Your task to perform on an android device: turn off translation in the chrome app Image 0: 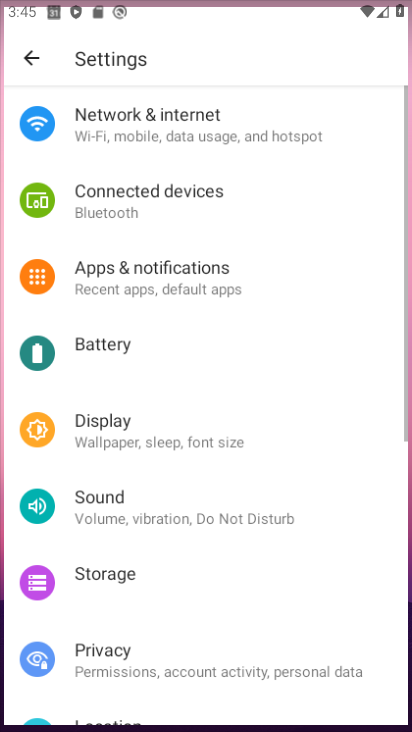
Step 0: drag from (266, 705) to (235, 181)
Your task to perform on an android device: turn off translation in the chrome app Image 1: 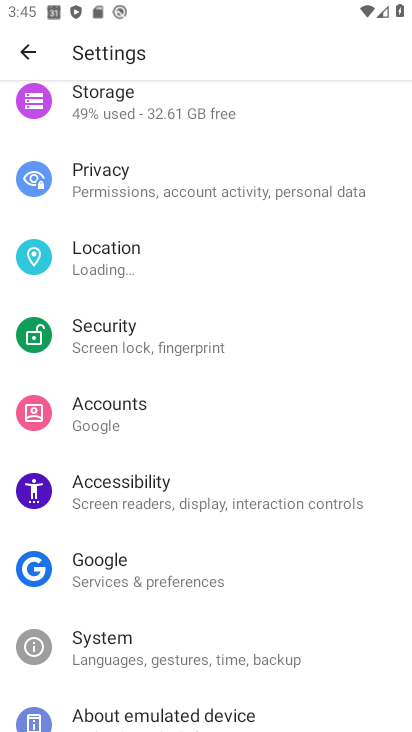
Step 1: press back button
Your task to perform on an android device: turn off translation in the chrome app Image 2: 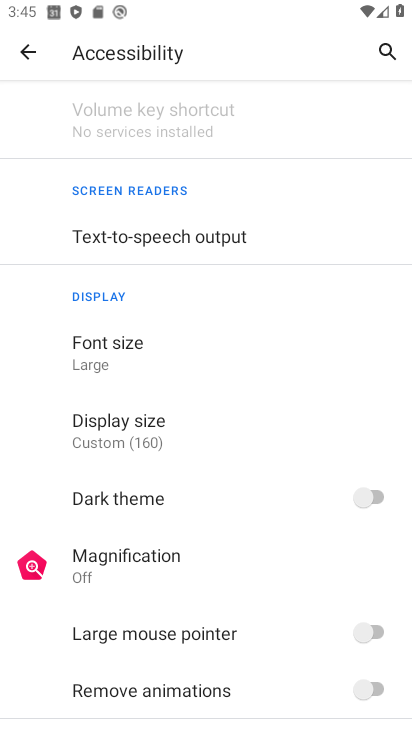
Step 2: click (28, 56)
Your task to perform on an android device: turn off translation in the chrome app Image 3: 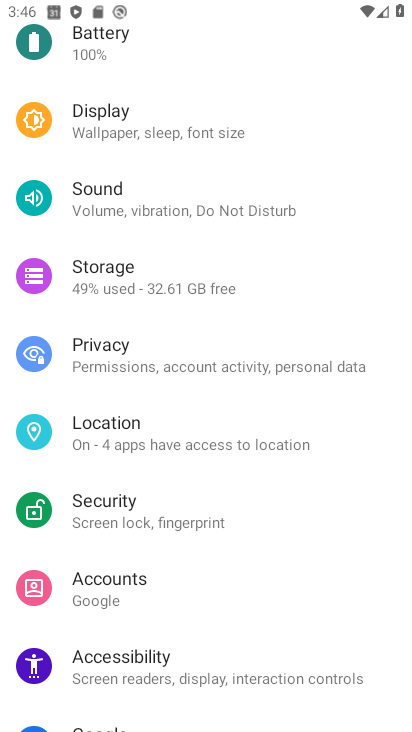
Step 3: press home button
Your task to perform on an android device: turn off translation in the chrome app Image 4: 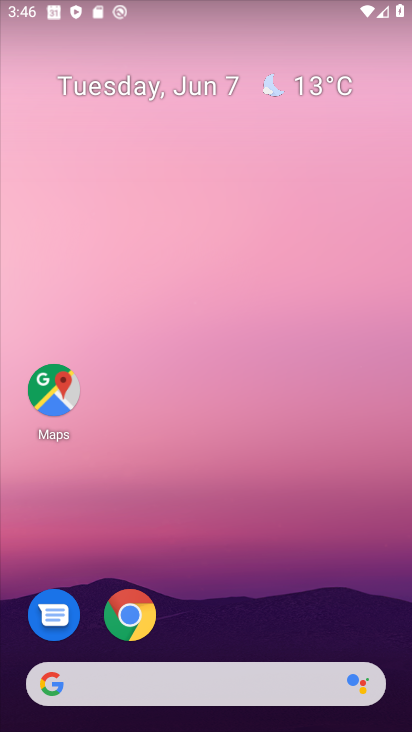
Step 4: drag from (221, 601) to (173, 239)
Your task to perform on an android device: turn off translation in the chrome app Image 5: 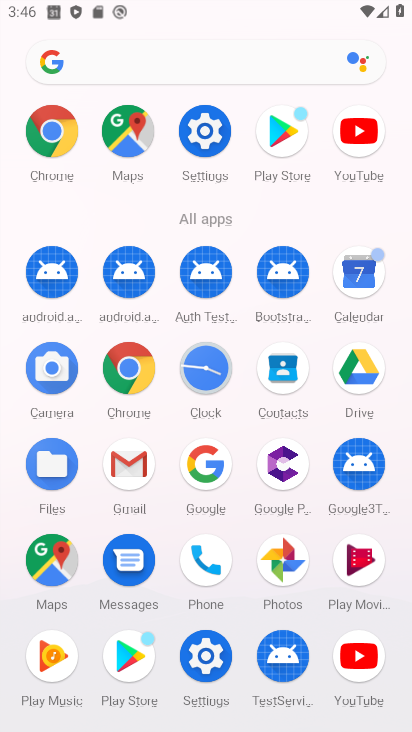
Step 5: click (122, 366)
Your task to perform on an android device: turn off translation in the chrome app Image 6: 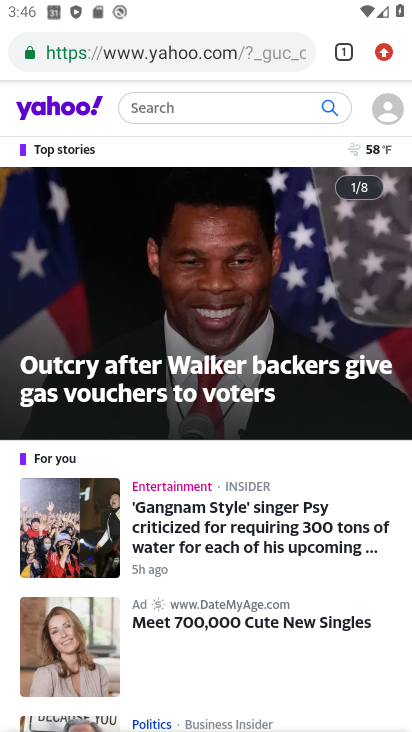
Step 6: drag from (380, 53) to (216, 544)
Your task to perform on an android device: turn off translation in the chrome app Image 7: 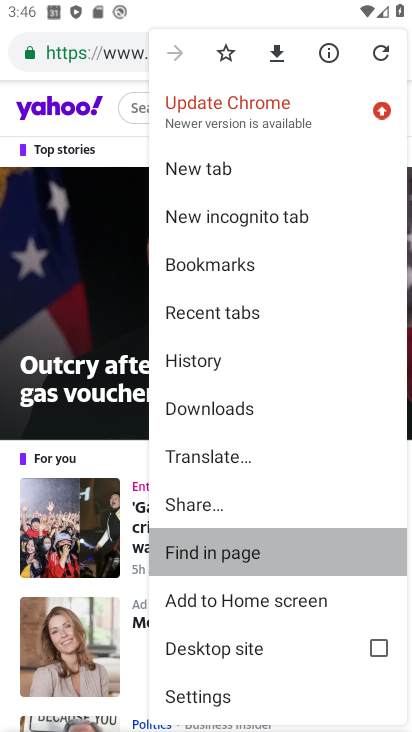
Step 7: drag from (216, 544) to (200, 456)
Your task to perform on an android device: turn off translation in the chrome app Image 8: 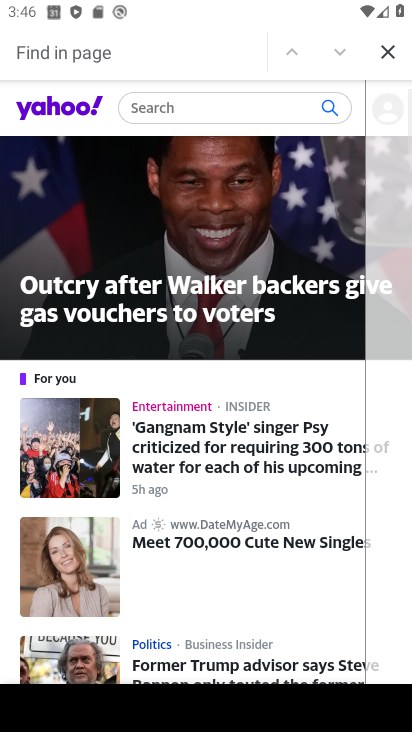
Step 8: click (378, 56)
Your task to perform on an android device: turn off translation in the chrome app Image 9: 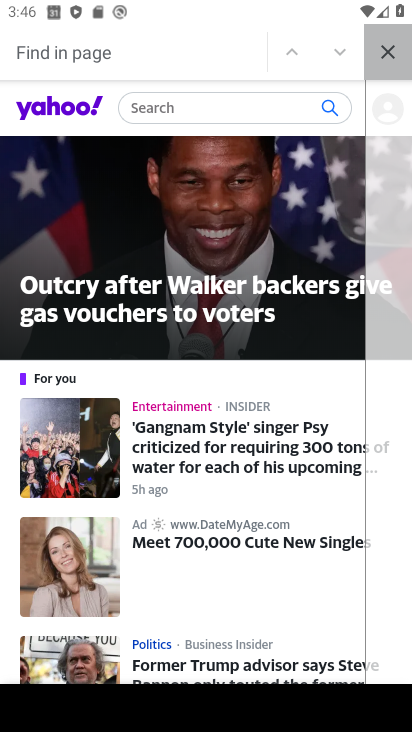
Step 9: drag from (378, 55) to (332, 304)
Your task to perform on an android device: turn off translation in the chrome app Image 10: 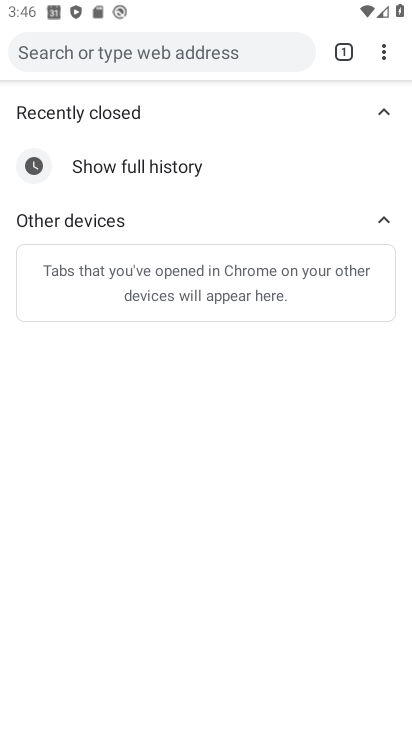
Step 10: drag from (384, 54) to (290, 390)
Your task to perform on an android device: turn off translation in the chrome app Image 11: 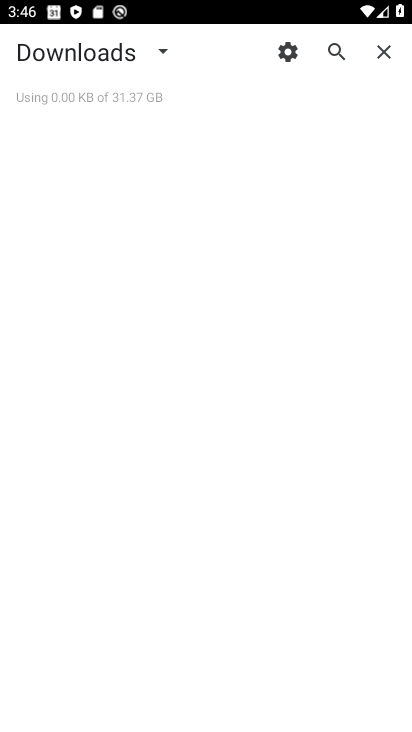
Step 11: press back button
Your task to perform on an android device: turn off translation in the chrome app Image 12: 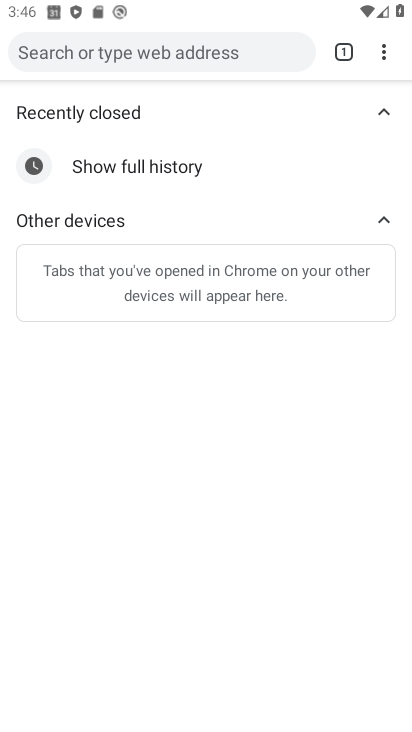
Step 12: drag from (384, 52) to (195, 490)
Your task to perform on an android device: turn off translation in the chrome app Image 13: 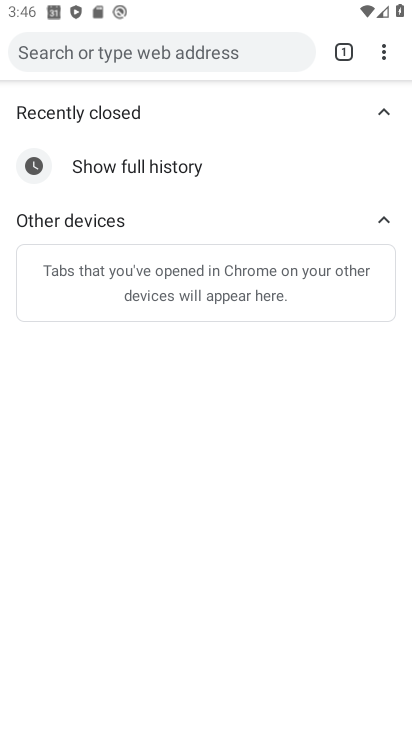
Step 13: click (195, 490)
Your task to perform on an android device: turn off translation in the chrome app Image 14: 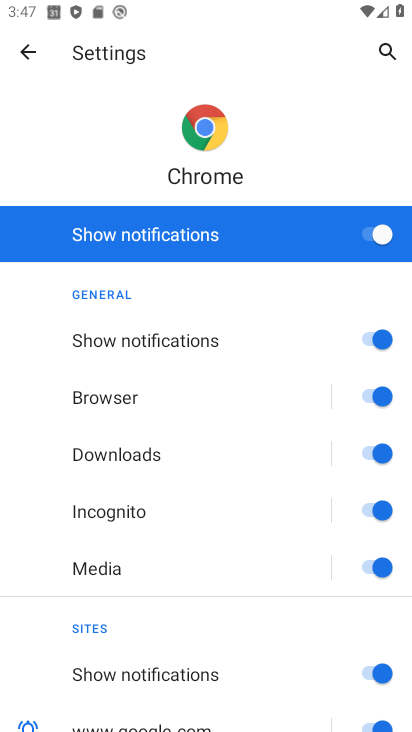
Step 14: click (25, 50)
Your task to perform on an android device: turn off translation in the chrome app Image 15: 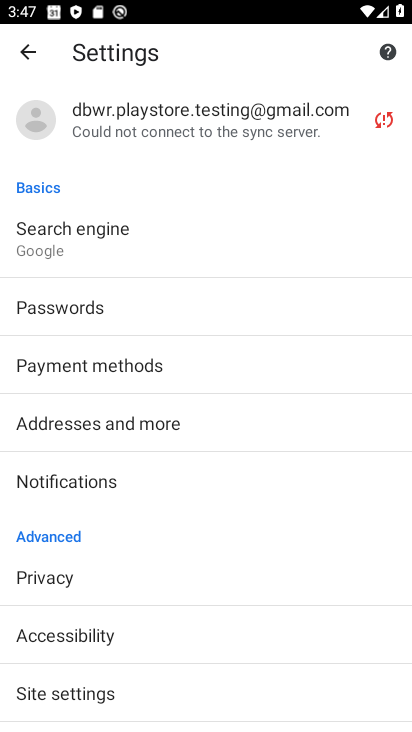
Step 15: drag from (29, 582) to (0, 328)
Your task to perform on an android device: turn off translation in the chrome app Image 16: 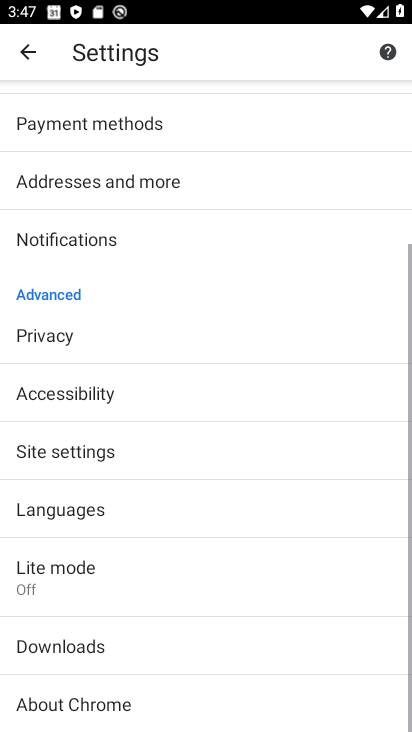
Step 16: drag from (75, 544) to (66, 262)
Your task to perform on an android device: turn off translation in the chrome app Image 17: 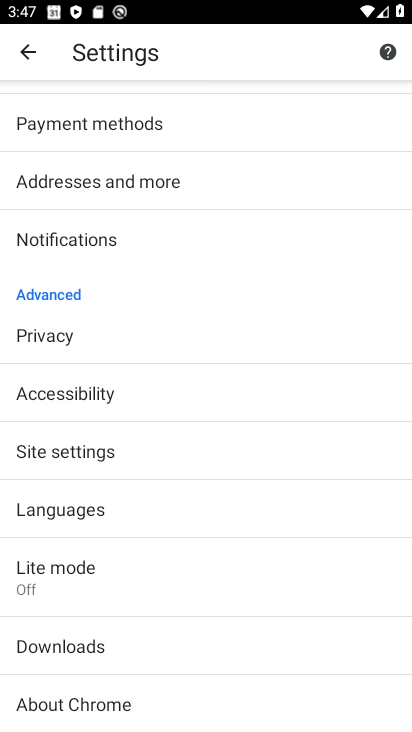
Step 17: click (58, 517)
Your task to perform on an android device: turn off translation in the chrome app Image 18: 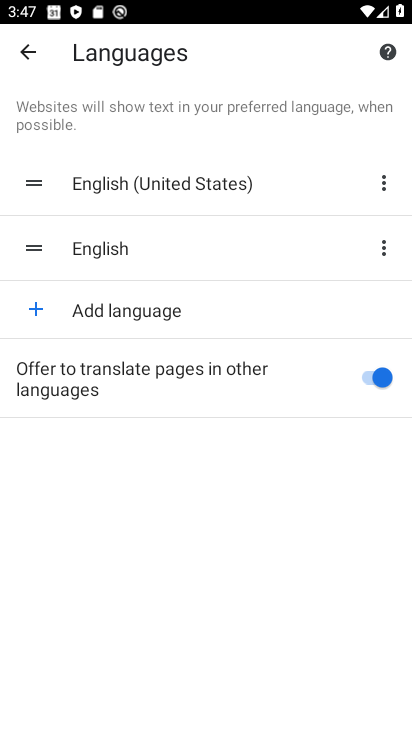
Step 18: click (380, 370)
Your task to perform on an android device: turn off translation in the chrome app Image 19: 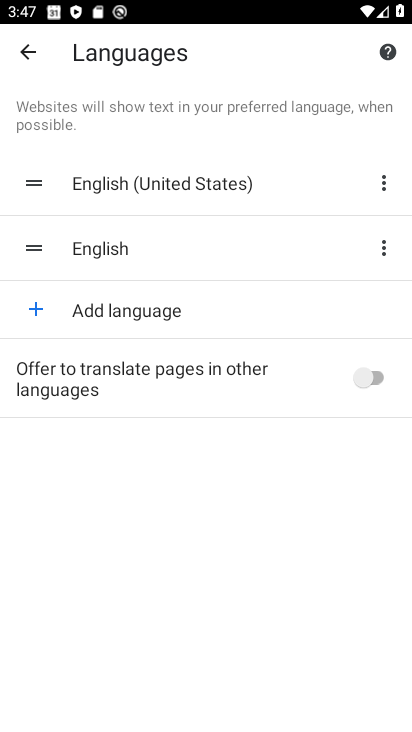
Step 19: task complete